Your task to perform on an android device: Open calendar and show me the fourth week of next month Image 0: 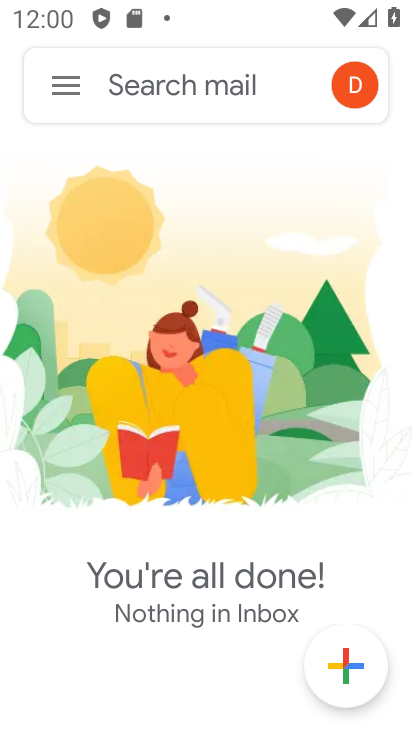
Step 0: press home button
Your task to perform on an android device: Open calendar and show me the fourth week of next month Image 1: 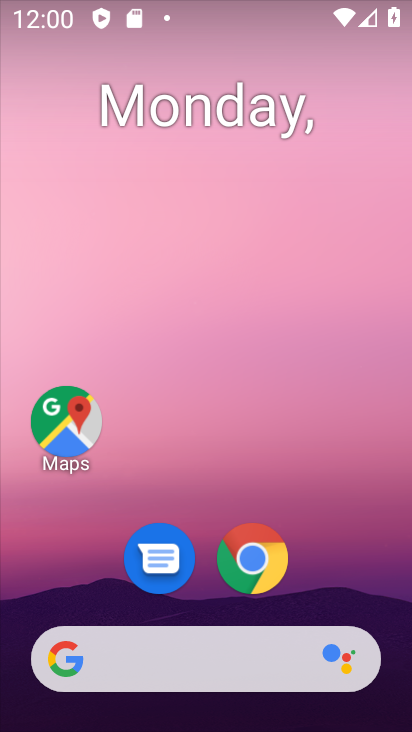
Step 1: drag from (373, 518) to (367, 156)
Your task to perform on an android device: Open calendar and show me the fourth week of next month Image 2: 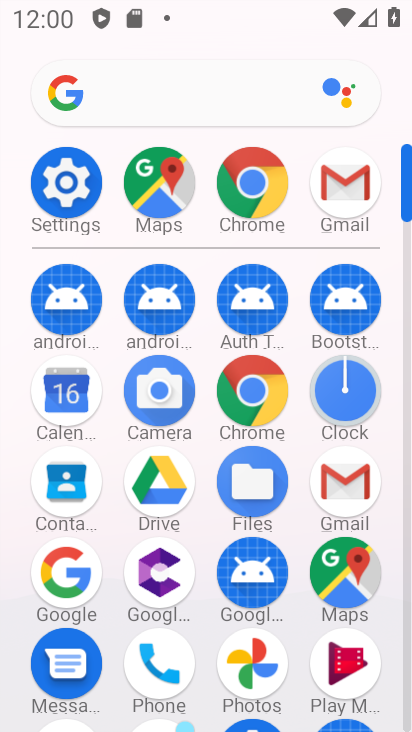
Step 2: click (77, 414)
Your task to perform on an android device: Open calendar and show me the fourth week of next month Image 3: 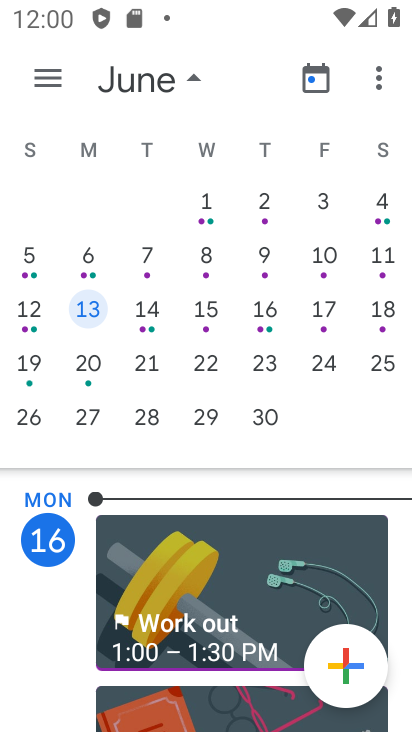
Step 3: click (86, 365)
Your task to perform on an android device: Open calendar and show me the fourth week of next month Image 4: 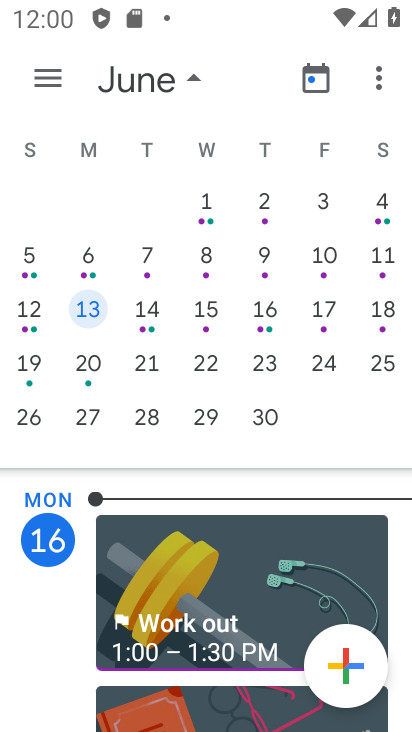
Step 4: click (91, 359)
Your task to perform on an android device: Open calendar and show me the fourth week of next month Image 5: 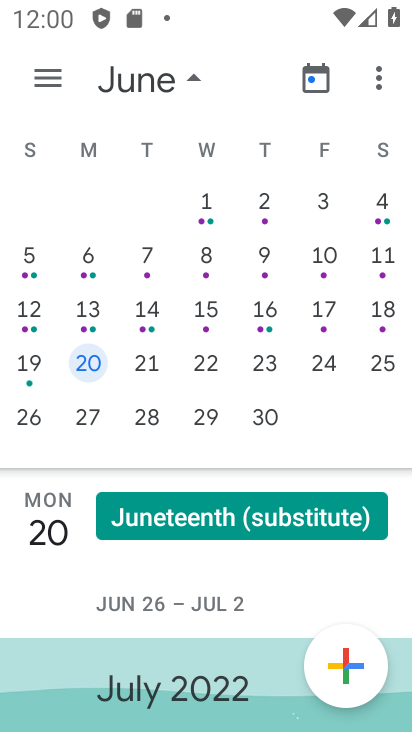
Step 5: task complete